Your task to perform on an android device: Open Google Chrome Image 0: 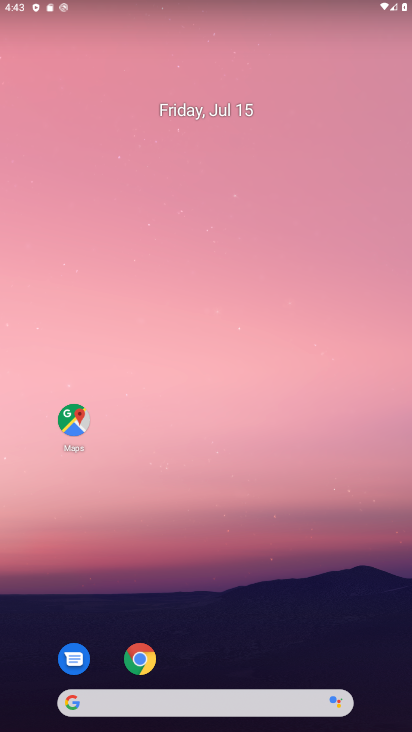
Step 0: click (138, 646)
Your task to perform on an android device: Open Google Chrome Image 1: 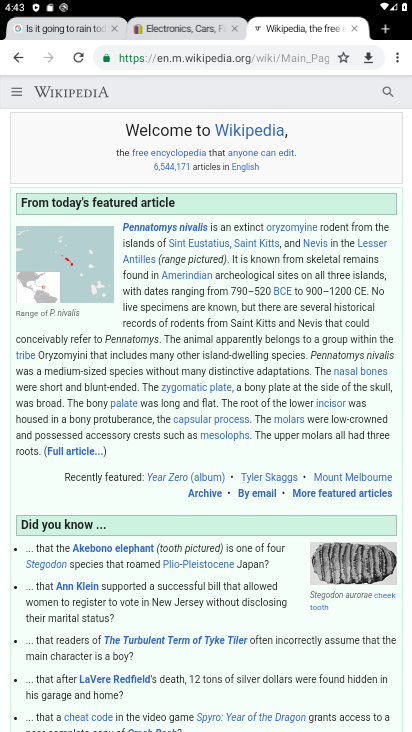
Step 1: task complete